Your task to perform on an android device: move an email to a new category in the gmail app Image 0: 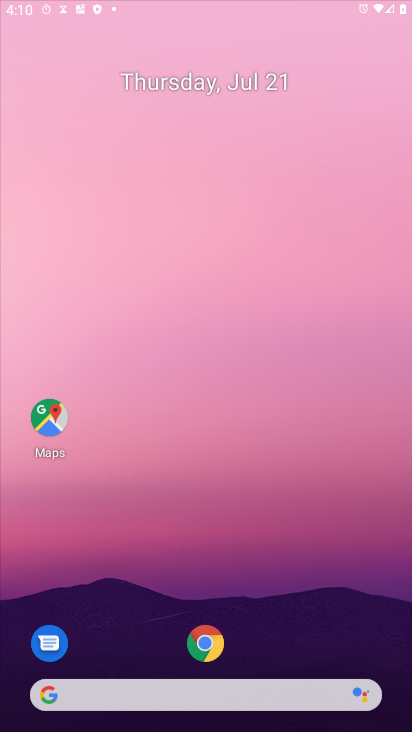
Step 0: press home button
Your task to perform on an android device: move an email to a new category in the gmail app Image 1: 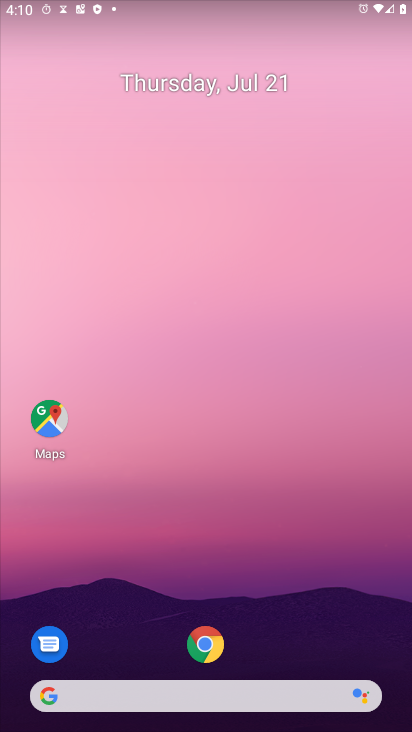
Step 1: drag from (308, 680) to (308, 14)
Your task to perform on an android device: move an email to a new category in the gmail app Image 2: 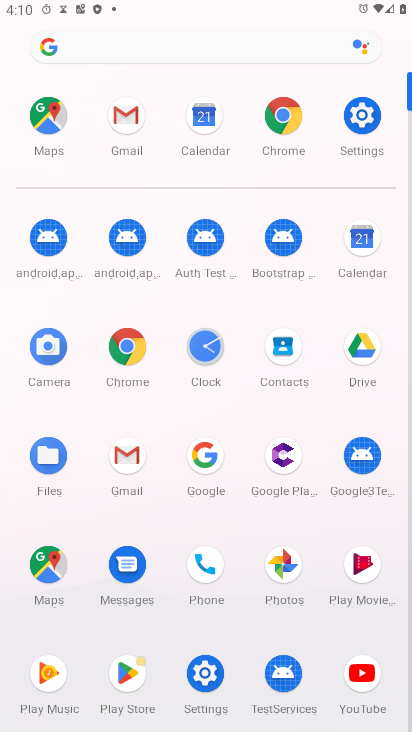
Step 2: click (132, 121)
Your task to perform on an android device: move an email to a new category in the gmail app Image 3: 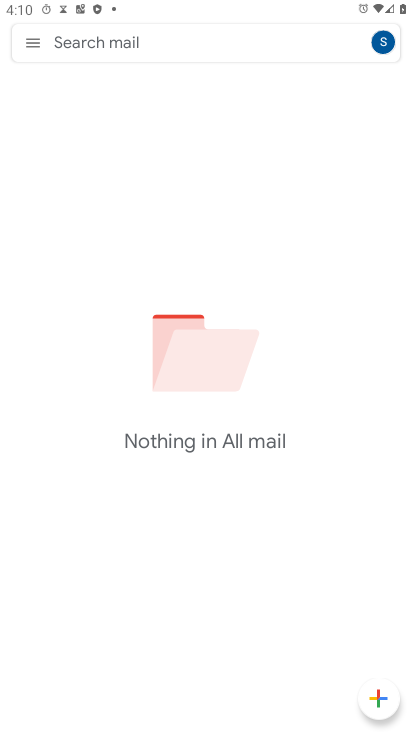
Step 3: click (36, 43)
Your task to perform on an android device: move an email to a new category in the gmail app Image 4: 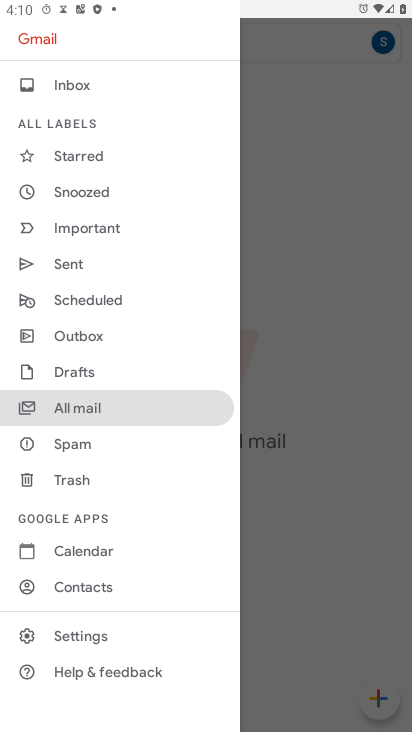
Step 4: click (68, 408)
Your task to perform on an android device: move an email to a new category in the gmail app Image 5: 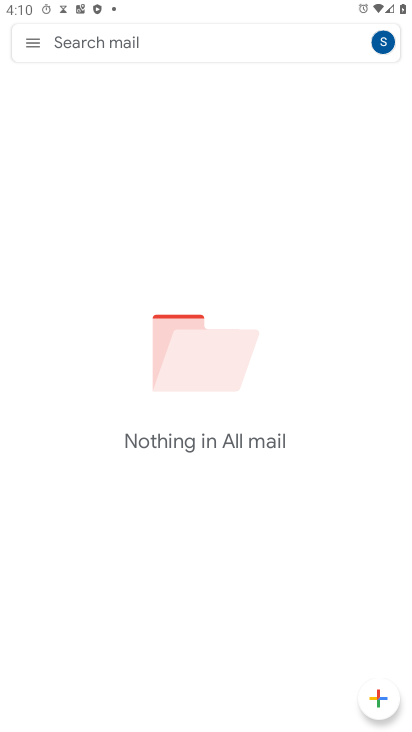
Step 5: task complete